Your task to perform on an android device: Search for razer blackwidow on target, select the first entry, and add it to the cart. Image 0: 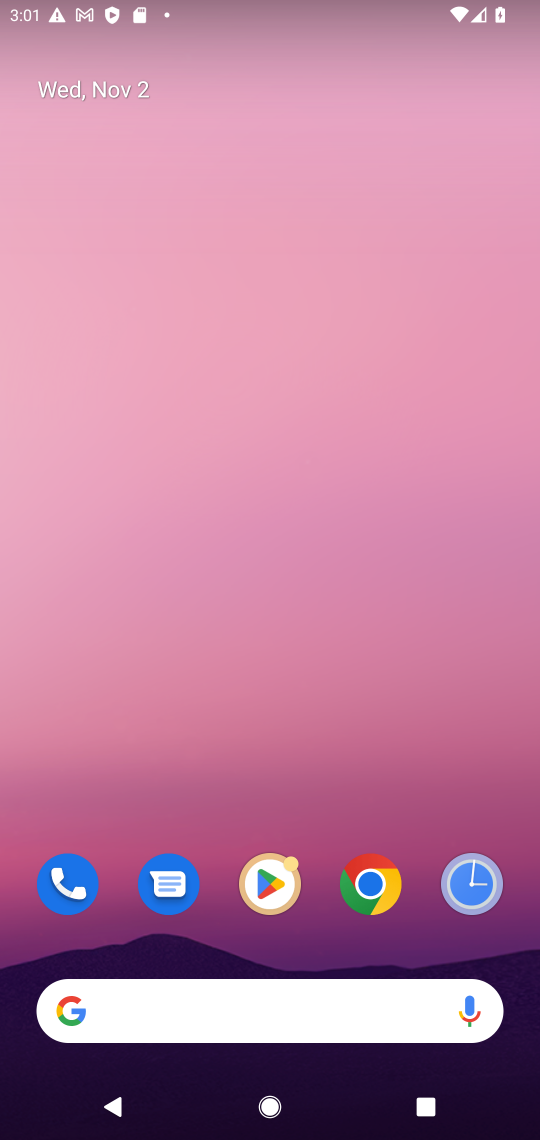
Step 0: click (373, 886)
Your task to perform on an android device: Search for razer blackwidow on target, select the first entry, and add it to the cart. Image 1: 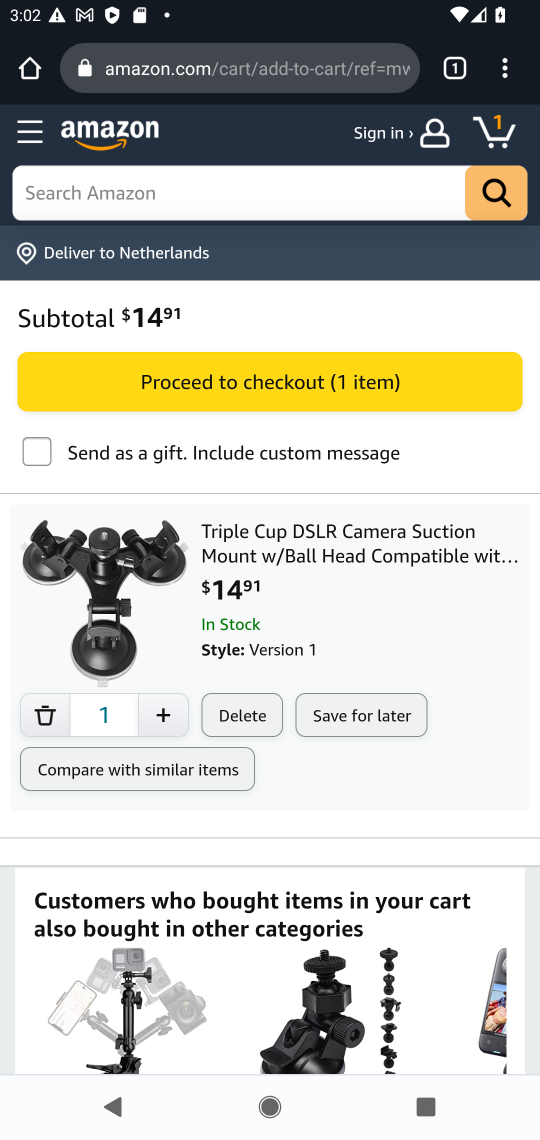
Step 1: click (347, 74)
Your task to perform on an android device: Search for razer blackwidow on target, select the first entry, and add it to the cart. Image 2: 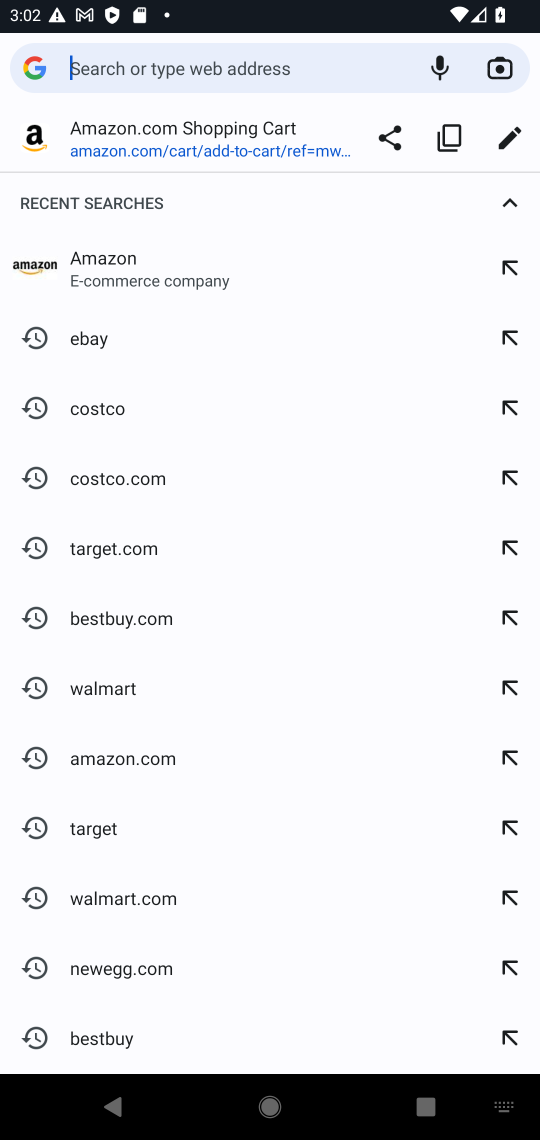
Step 2: type "target"
Your task to perform on an android device: Search for razer blackwidow on target, select the first entry, and add it to the cart. Image 3: 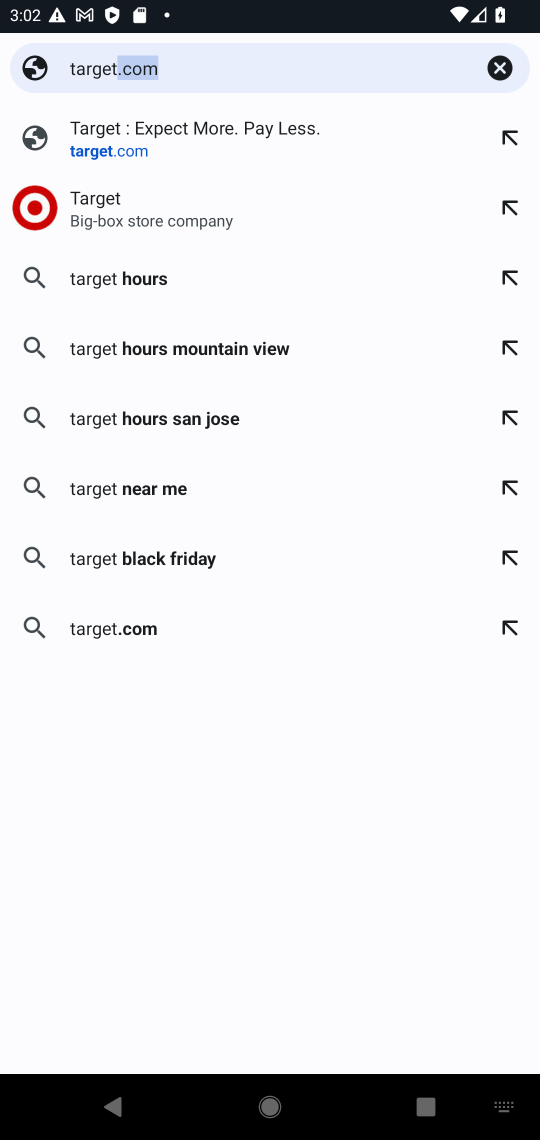
Step 3: click (86, 208)
Your task to perform on an android device: Search for razer blackwidow on target, select the first entry, and add it to the cart. Image 4: 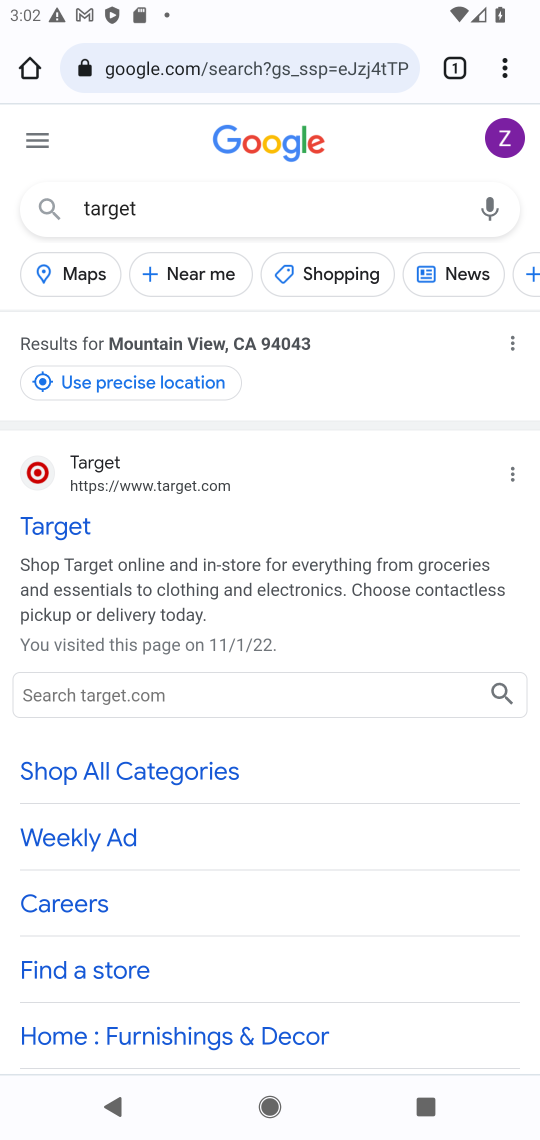
Step 4: click (106, 493)
Your task to perform on an android device: Search for razer blackwidow on target, select the first entry, and add it to the cart. Image 5: 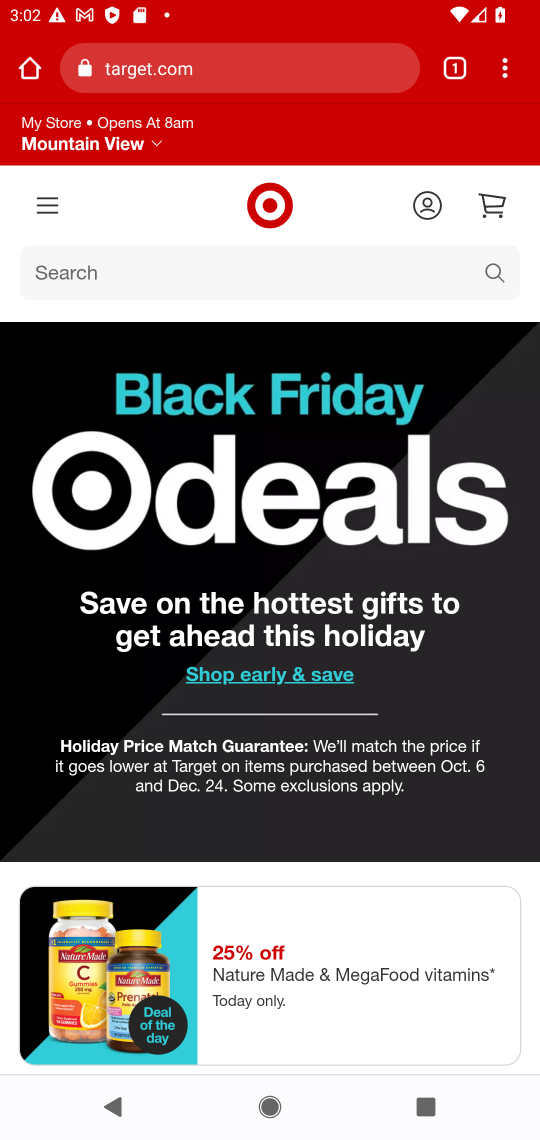
Step 5: click (236, 269)
Your task to perform on an android device: Search for razer blackwidow on target, select the first entry, and add it to the cart. Image 6: 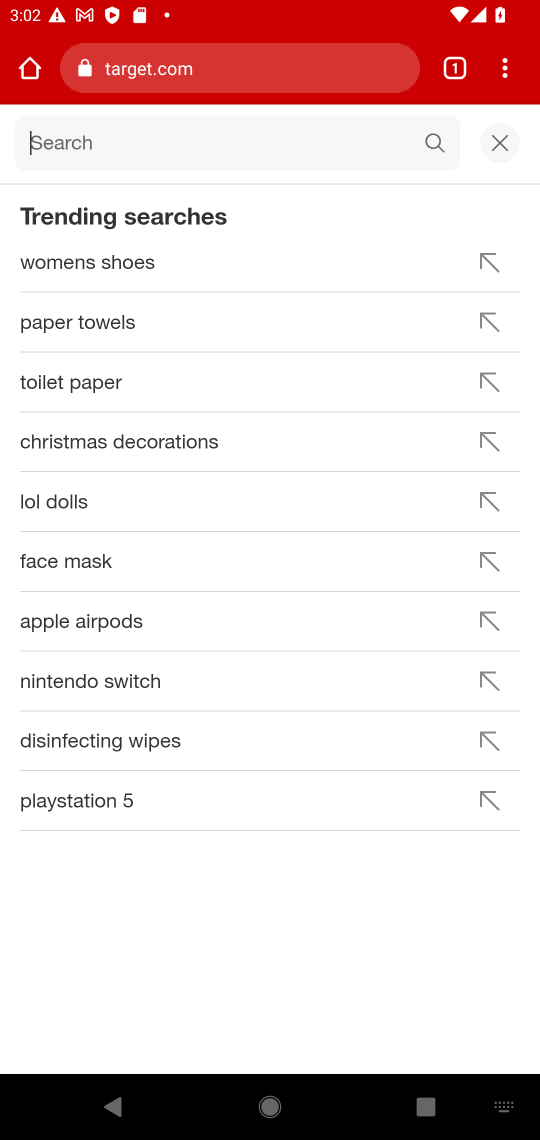
Step 6: type "razer blackwidow"
Your task to perform on an android device: Search for razer blackwidow on target, select the first entry, and add it to the cart. Image 7: 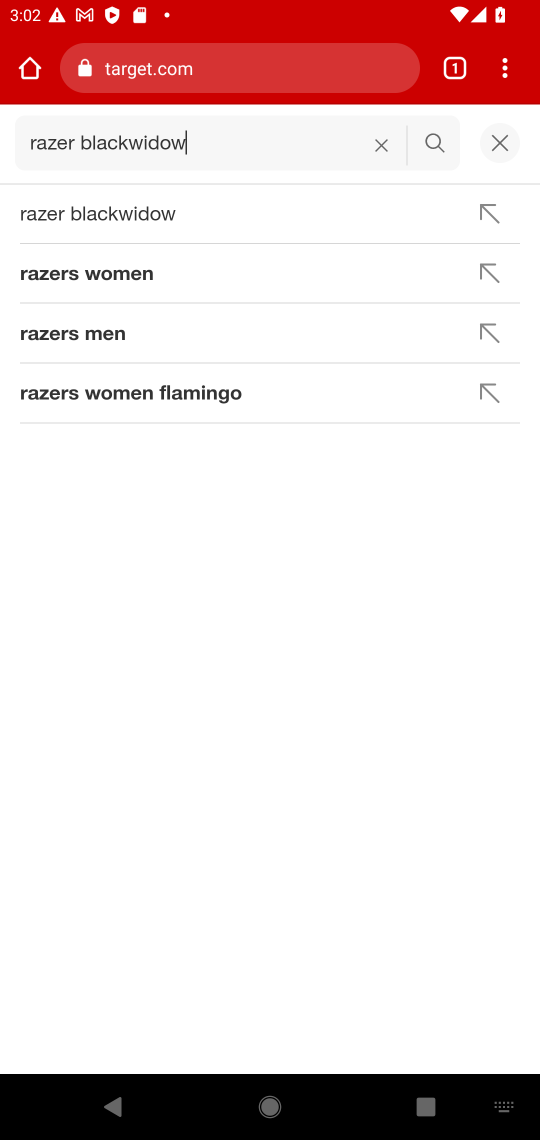
Step 7: click (112, 214)
Your task to perform on an android device: Search for razer blackwidow on target, select the first entry, and add it to the cart. Image 8: 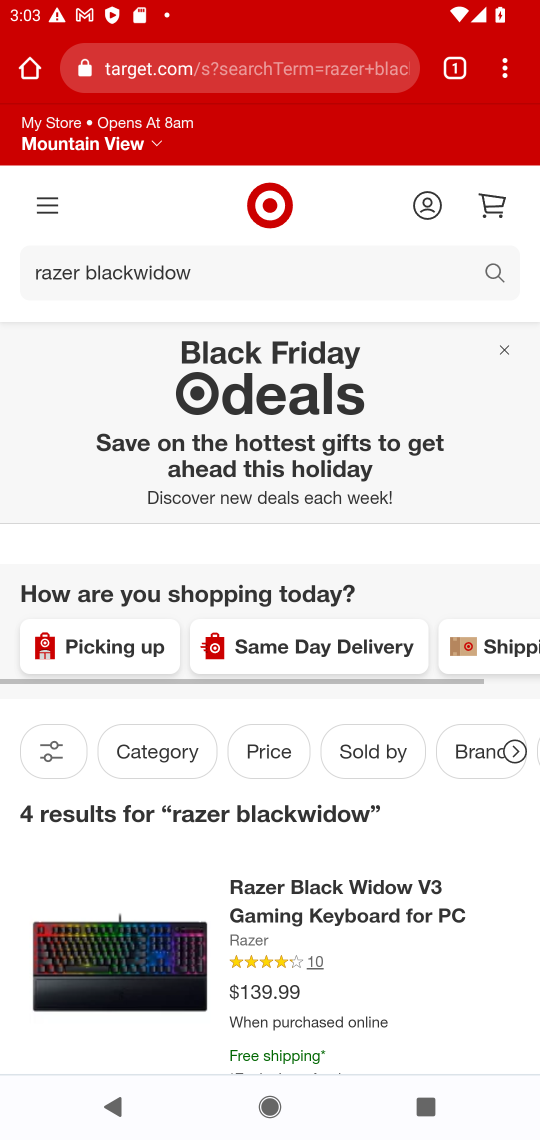
Step 8: click (300, 915)
Your task to perform on an android device: Search for razer blackwidow on target, select the first entry, and add it to the cart. Image 9: 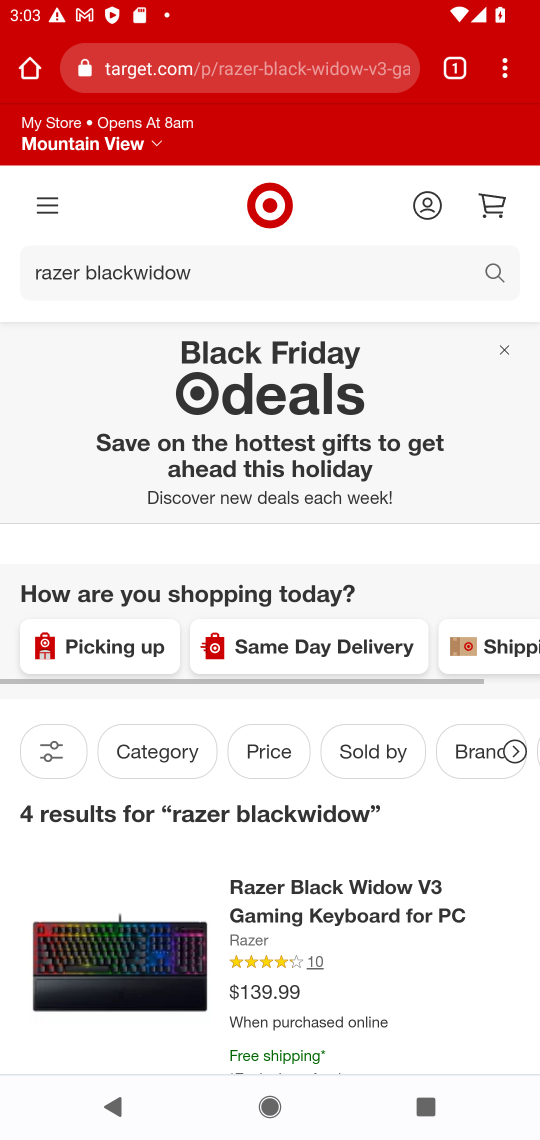
Step 9: click (354, 920)
Your task to perform on an android device: Search for razer blackwidow on target, select the first entry, and add it to the cart. Image 10: 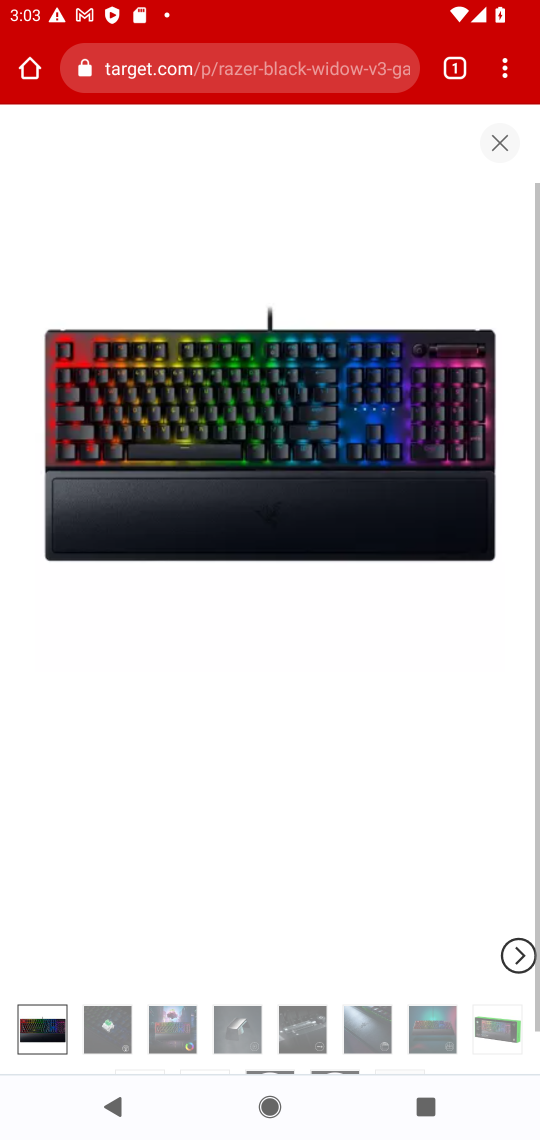
Step 10: drag from (291, 861) to (338, 155)
Your task to perform on an android device: Search for razer blackwidow on target, select the first entry, and add it to the cart. Image 11: 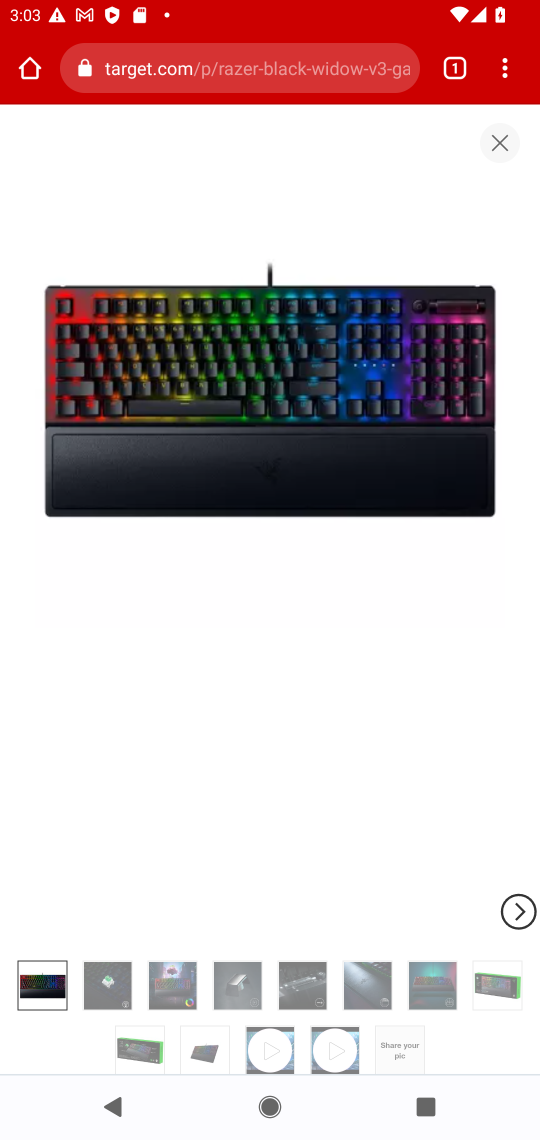
Step 11: click (513, 149)
Your task to perform on an android device: Search for razer blackwidow on target, select the first entry, and add it to the cart. Image 12: 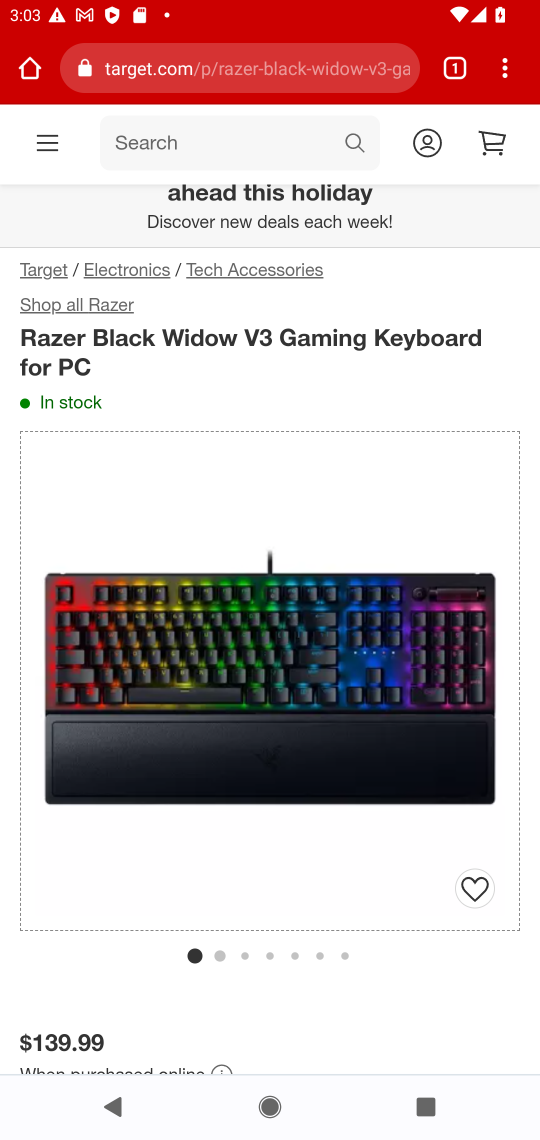
Step 12: click (351, 305)
Your task to perform on an android device: Search for razer blackwidow on target, select the first entry, and add it to the cart. Image 13: 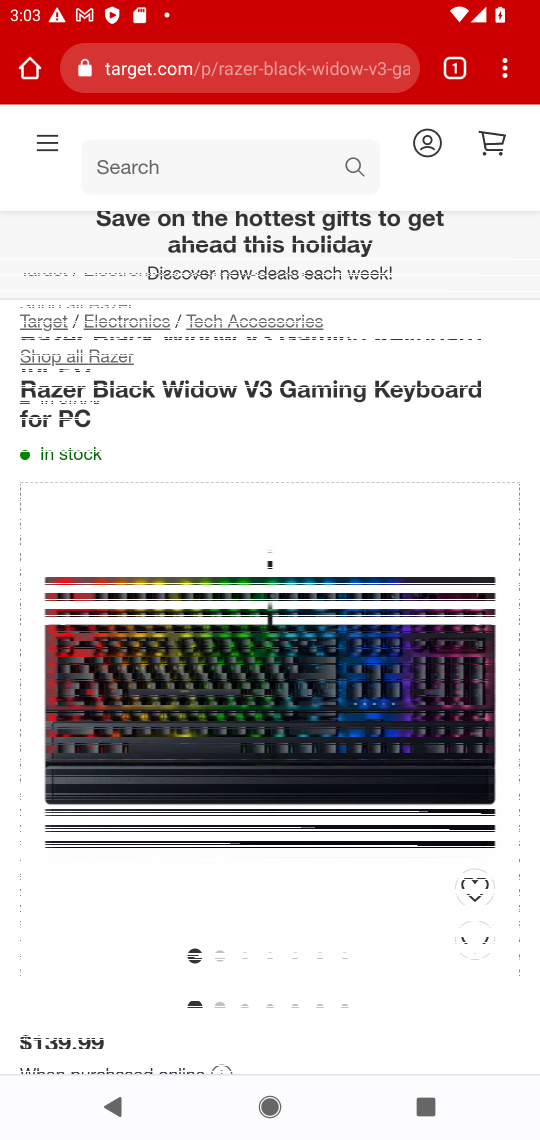
Step 13: drag from (334, 1007) to (488, 286)
Your task to perform on an android device: Search for razer blackwidow on target, select the first entry, and add it to the cart. Image 14: 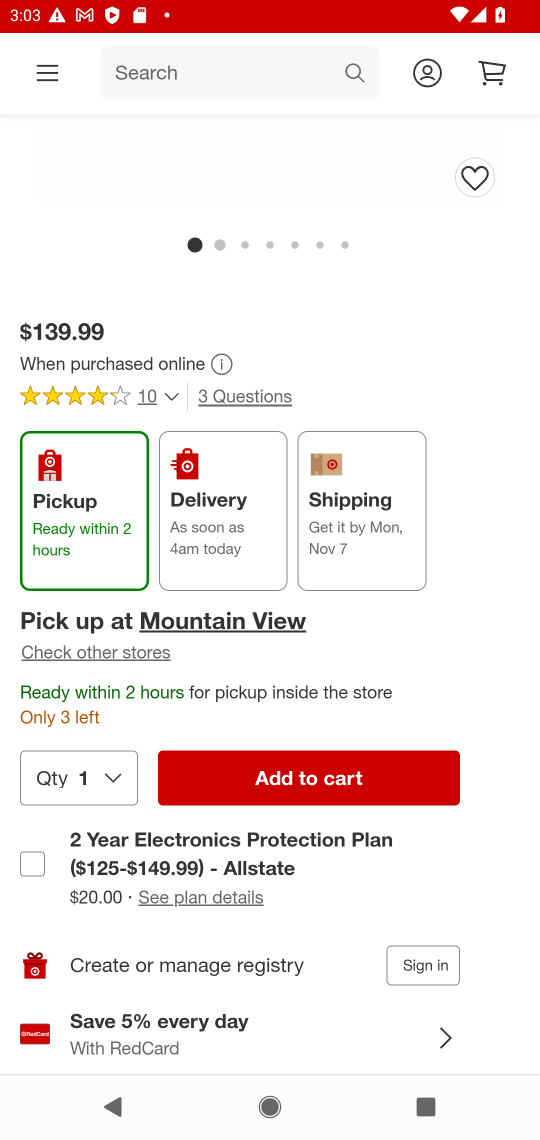
Step 14: click (315, 788)
Your task to perform on an android device: Search for razer blackwidow on target, select the first entry, and add it to the cart. Image 15: 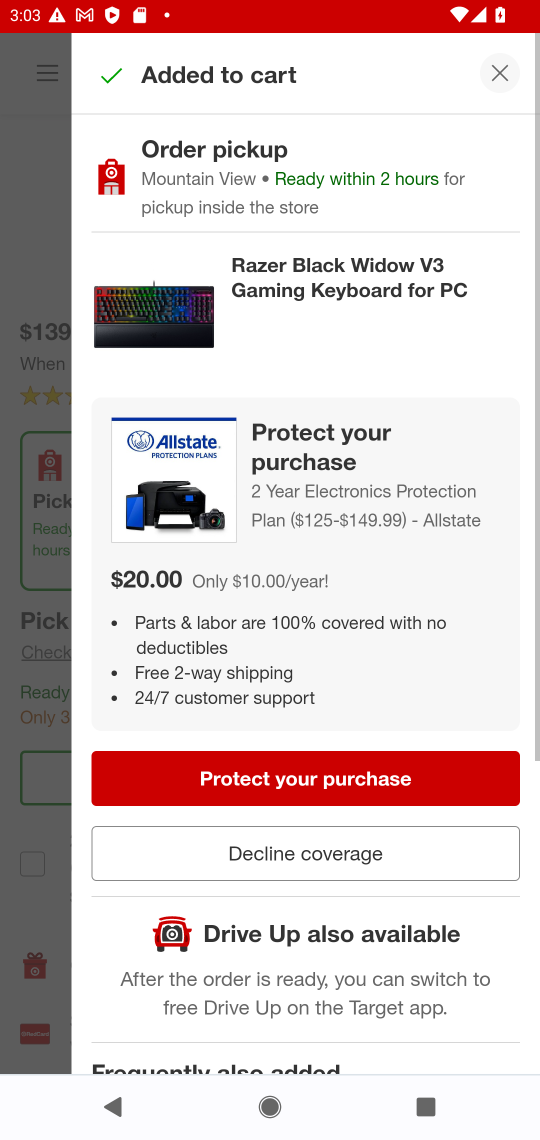
Step 15: click (301, 847)
Your task to perform on an android device: Search for razer blackwidow on target, select the first entry, and add it to the cart. Image 16: 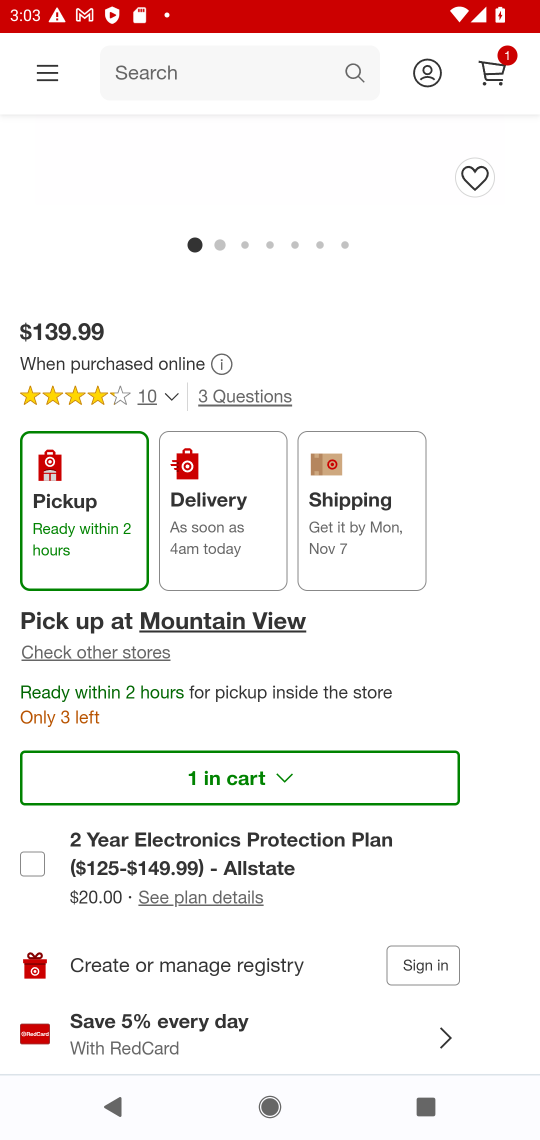
Step 16: task complete